Your task to perform on an android device: Add "amazon basics triple a" to the cart on walmart.com Image 0: 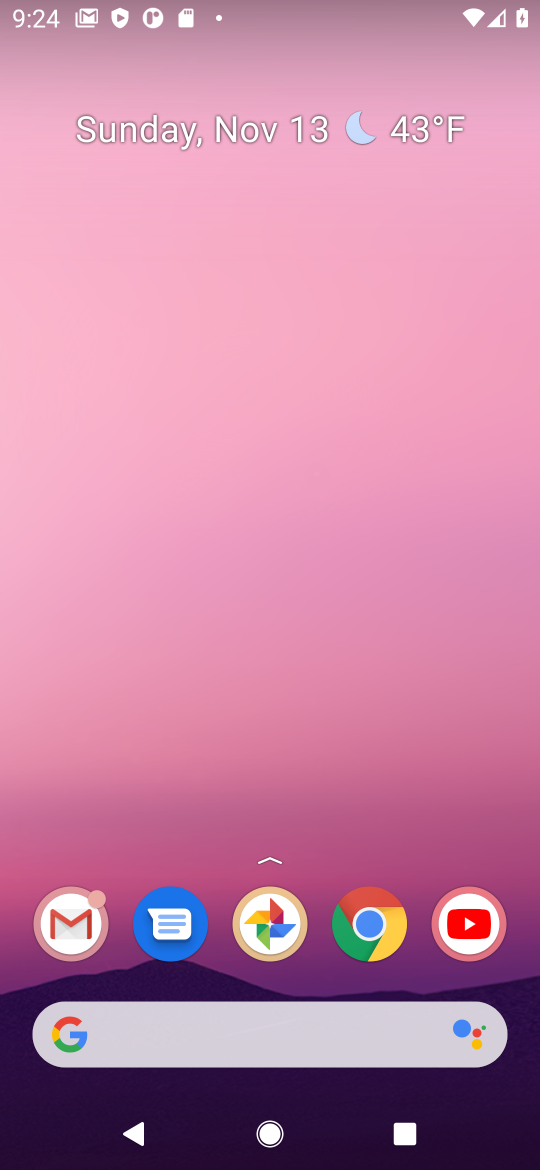
Step 0: click (355, 945)
Your task to perform on an android device: Add "amazon basics triple a" to the cart on walmart.com Image 1: 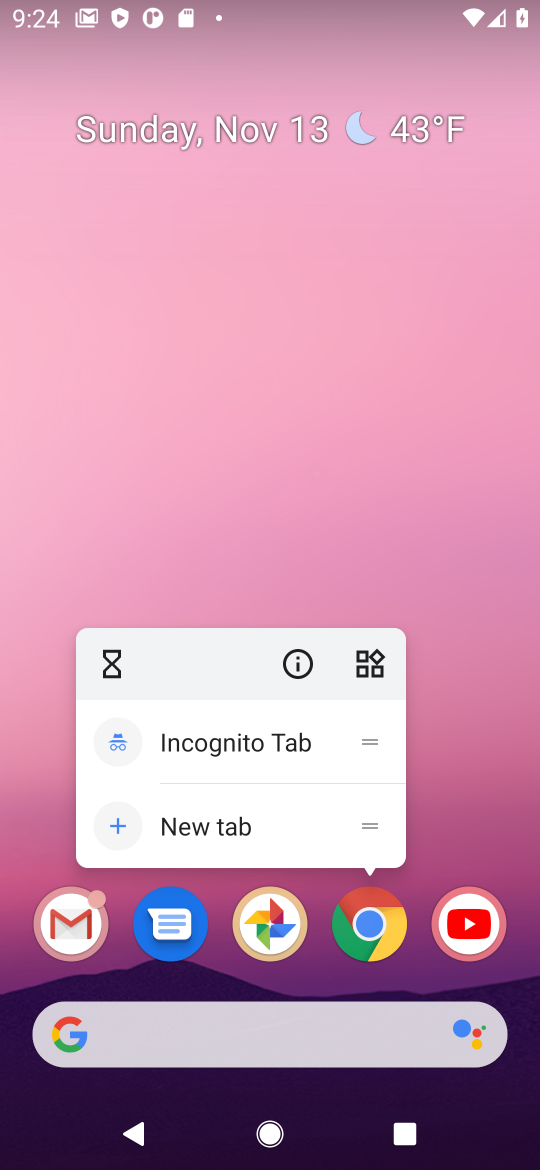
Step 1: click (369, 932)
Your task to perform on an android device: Add "amazon basics triple a" to the cart on walmart.com Image 2: 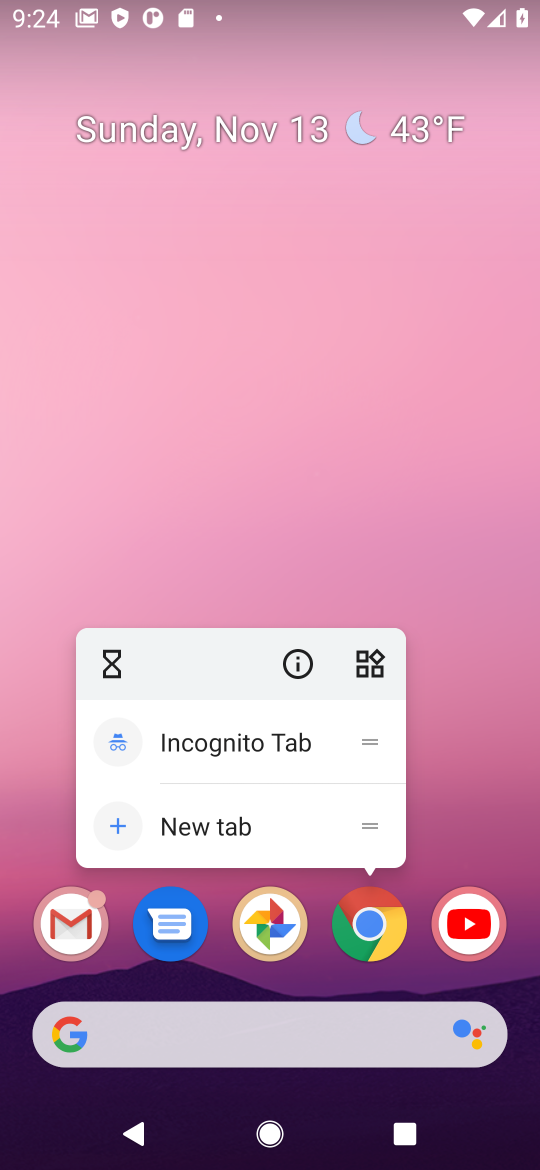
Step 2: click (372, 931)
Your task to perform on an android device: Add "amazon basics triple a" to the cart on walmart.com Image 3: 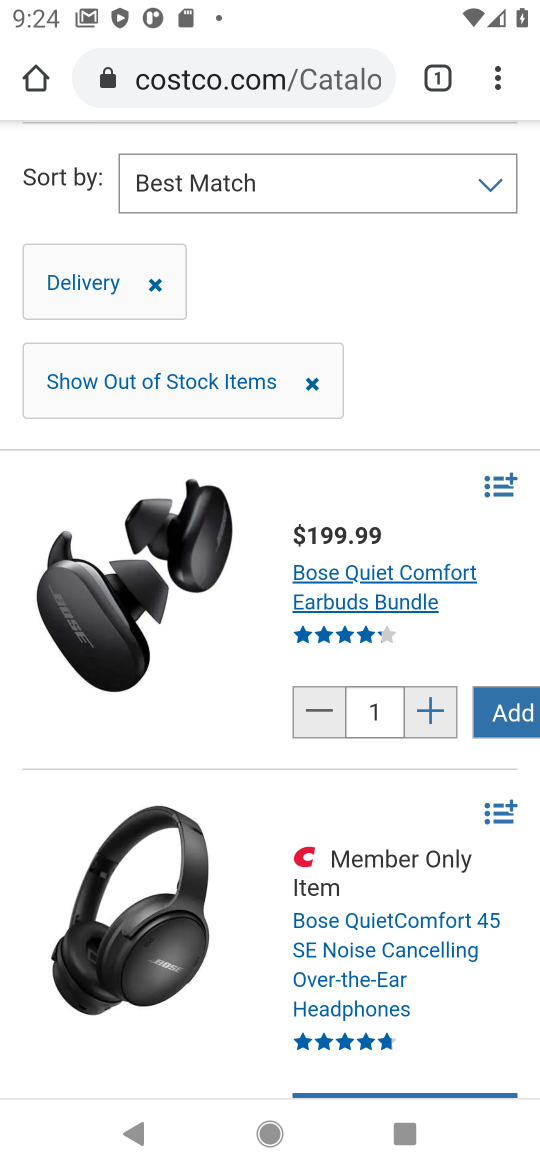
Step 3: click (297, 93)
Your task to perform on an android device: Add "amazon basics triple a" to the cart on walmart.com Image 4: 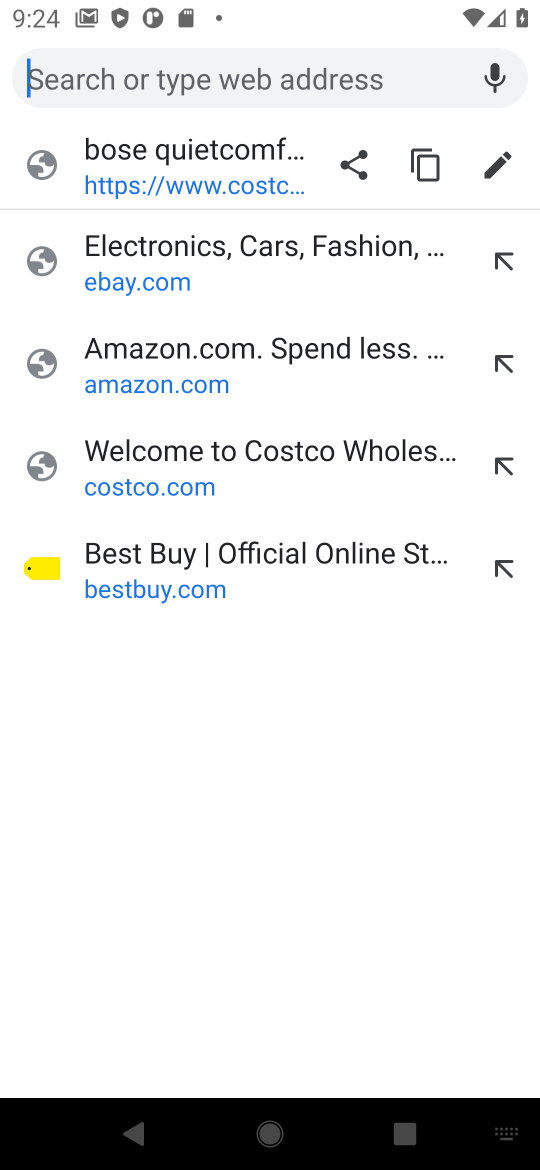
Step 4: type " walmart.com"
Your task to perform on an android device: Add "amazon basics triple a" to the cart on walmart.com Image 5: 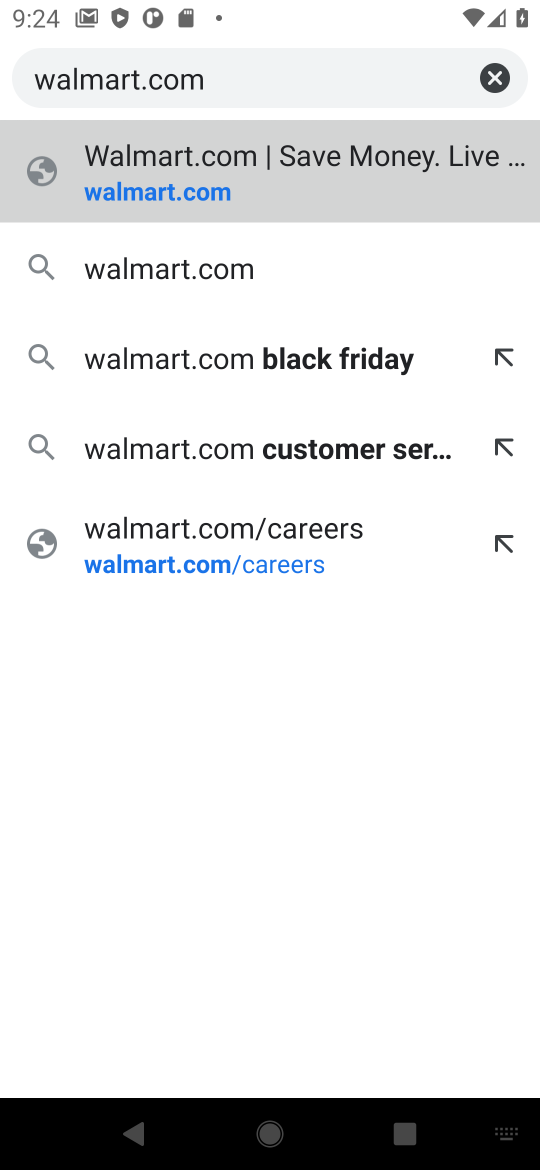
Step 5: press enter
Your task to perform on an android device: Add "amazon basics triple a" to the cart on walmart.com Image 6: 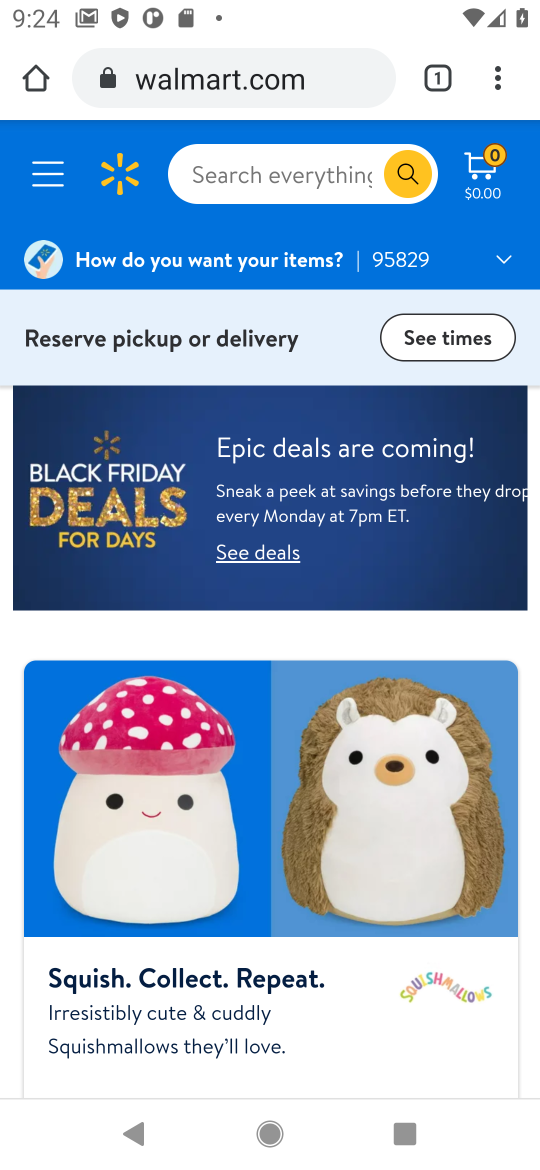
Step 6: click (274, 172)
Your task to perform on an android device: Add "amazon basics triple a" to the cart on walmart.com Image 7: 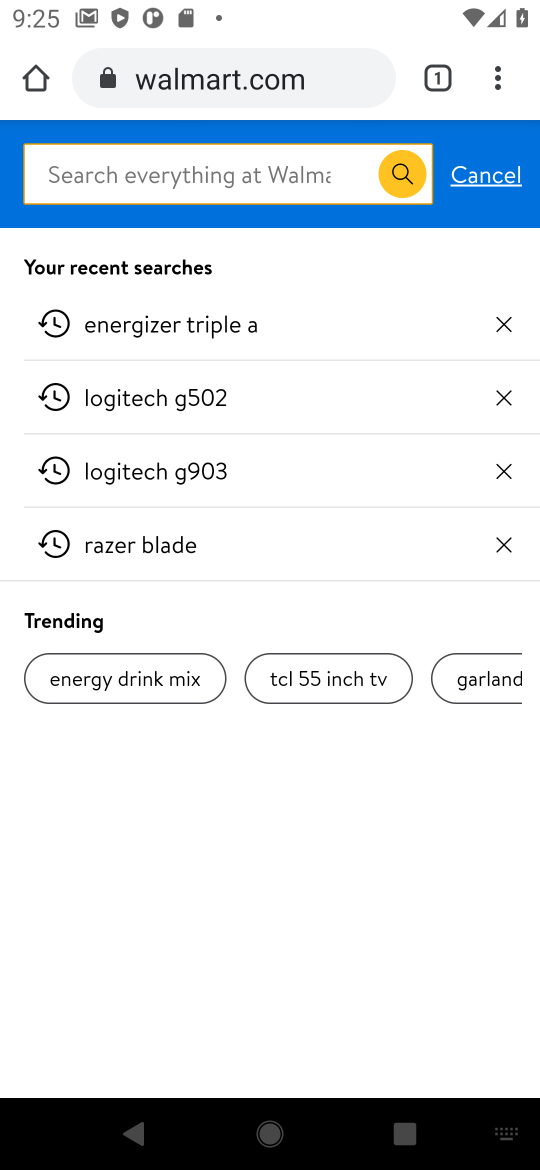
Step 7: type "amazon basics triple a"
Your task to perform on an android device: Add "amazon basics triple a" to the cart on walmart.com Image 8: 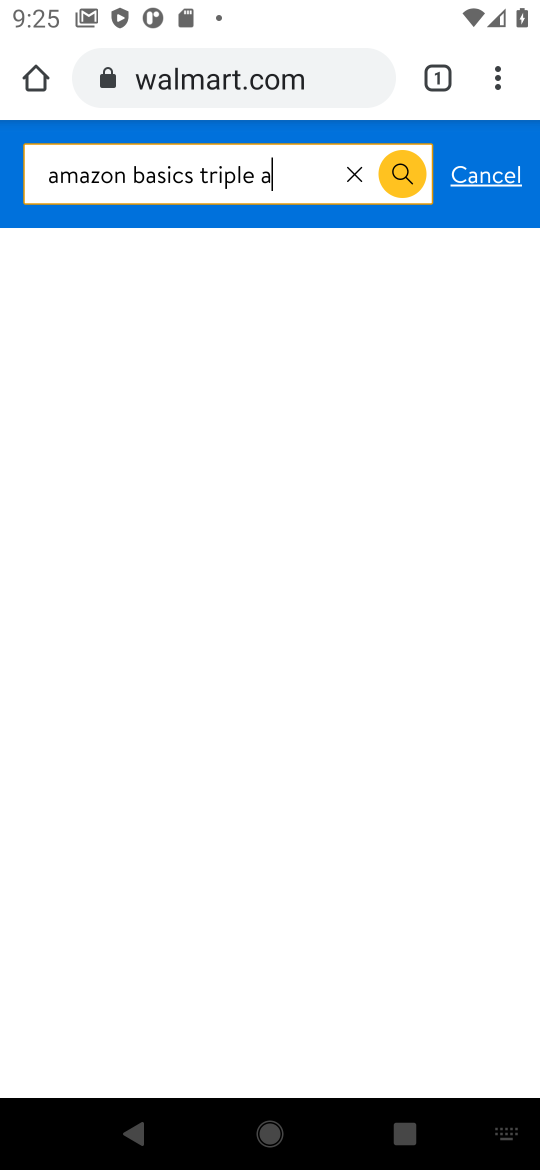
Step 8: press enter
Your task to perform on an android device: Add "amazon basics triple a" to the cart on walmart.com Image 9: 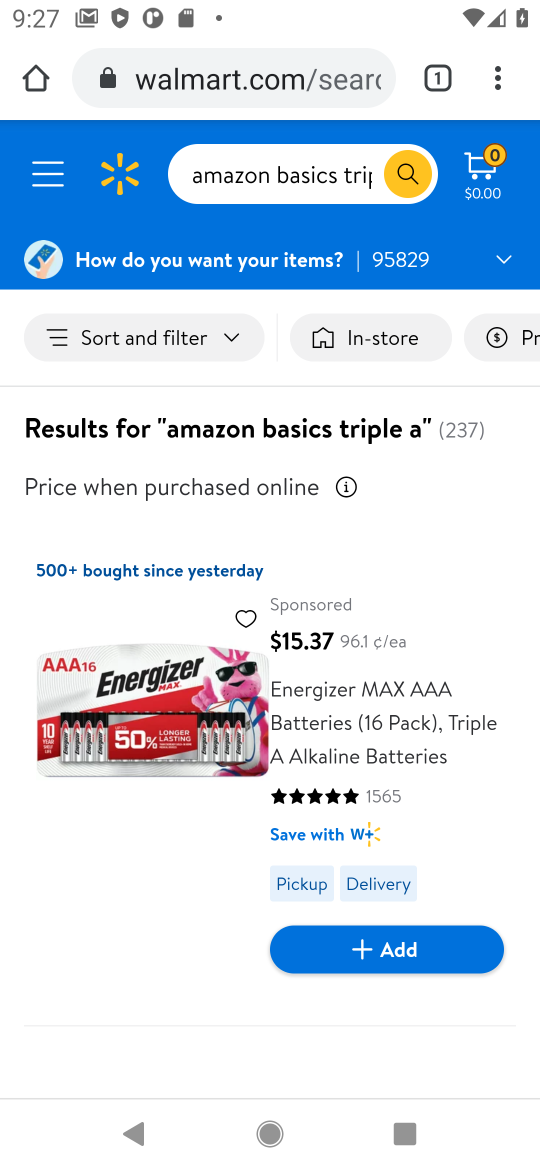
Step 9: task complete